Your task to perform on an android device: Open Android settings Image 0: 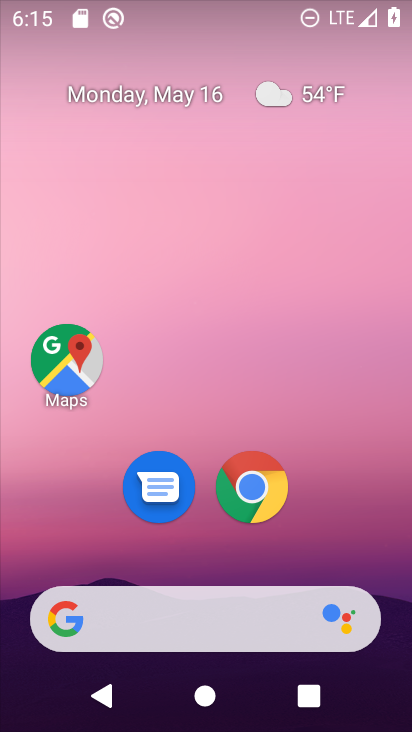
Step 0: drag from (172, 589) to (224, 126)
Your task to perform on an android device: Open Android settings Image 1: 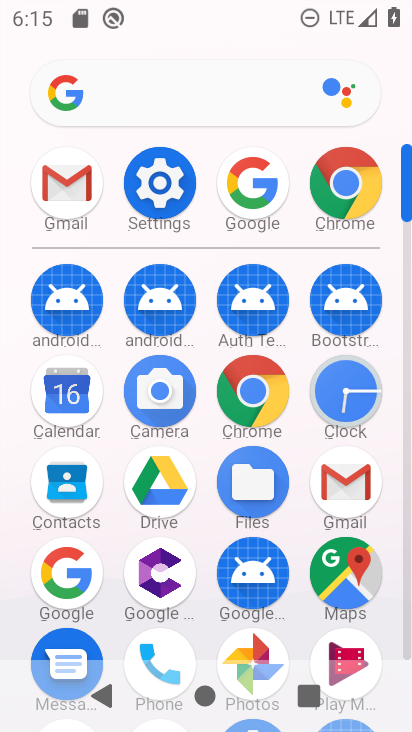
Step 1: click (156, 193)
Your task to perform on an android device: Open Android settings Image 2: 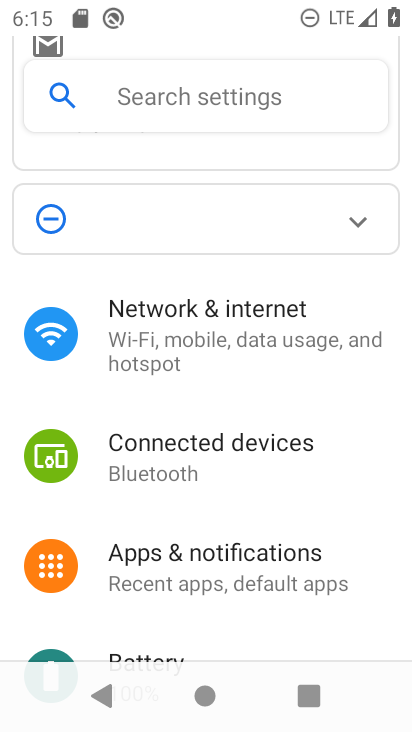
Step 2: task complete